Your task to perform on an android device: turn on the 12-hour format for clock Image 0: 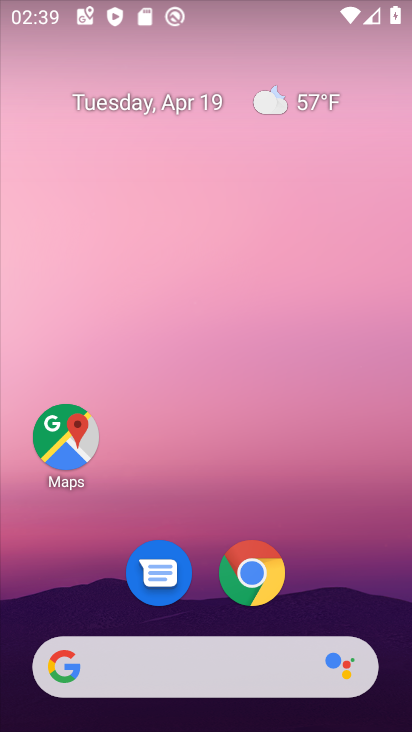
Step 0: drag from (376, 627) to (392, 34)
Your task to perform on an android device: turn on the 12-hour format for clock Image 1: 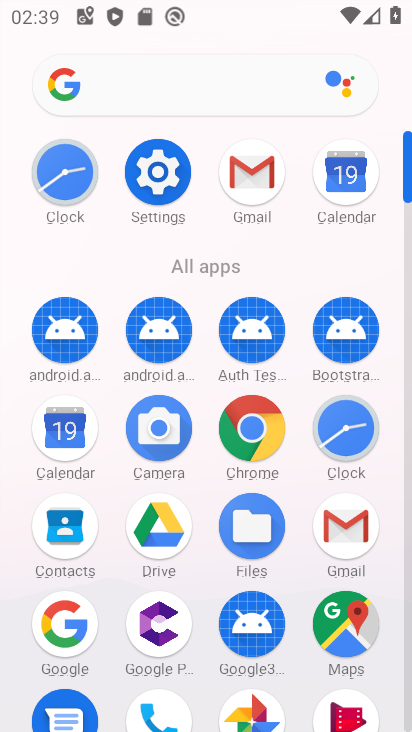
Step 1: click (331, 429)
Your task to perform on an android device: turn on the 12-hour format for clock Image 2: 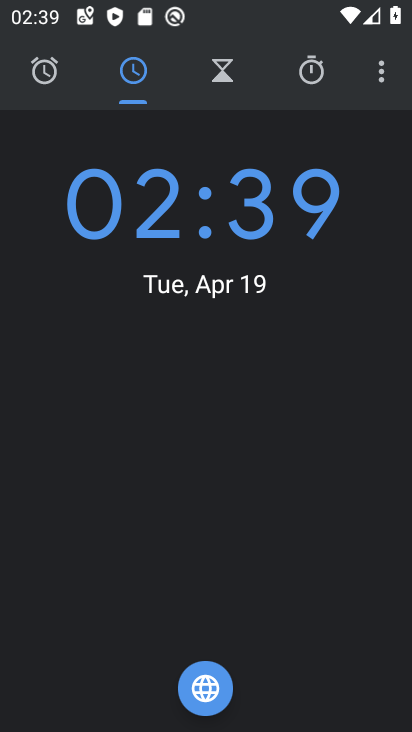
Step 2: click (382, 74)
Your task to perform on an android device: turn on the 12-hour format for clock Image 3: 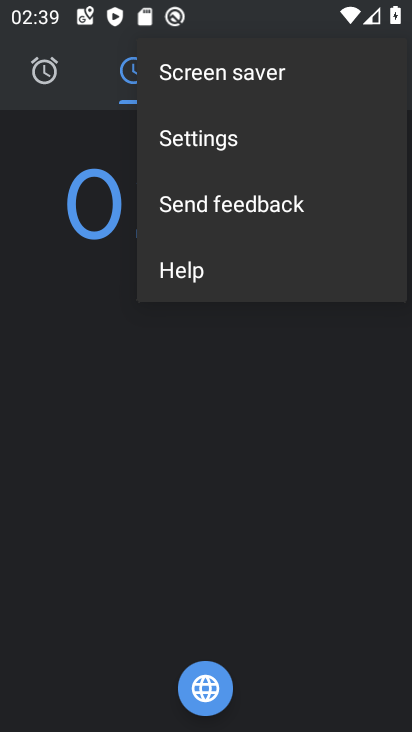
Step 3: click (212, 141)
Your task to perform on an android device: turn on the 12-hour format for clock Image 4: 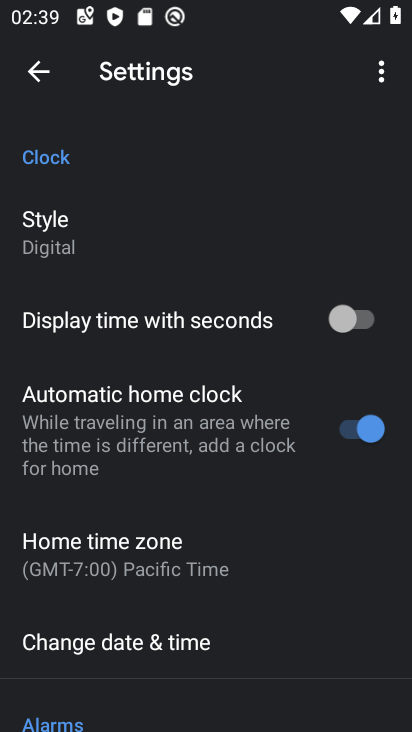
Step 4: click (110, 644)
Your task to perform on an android device: turn on the 12-hour format for clock Image 5: 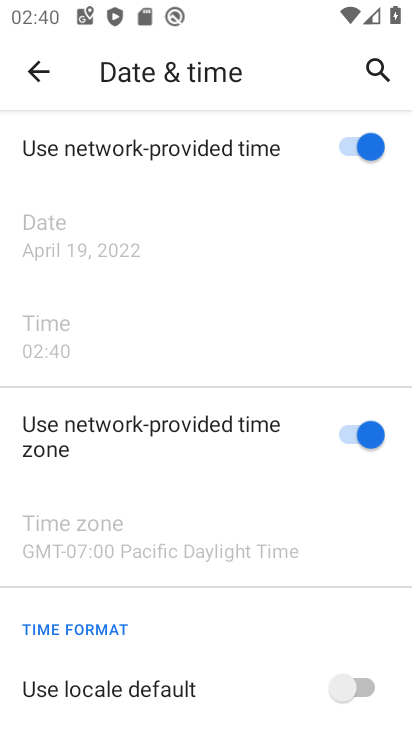
Step 5: drag from (154, 623) to (117, 289)
Your task to perform on an android device: turn on the 12-hour format for clock Image 6: 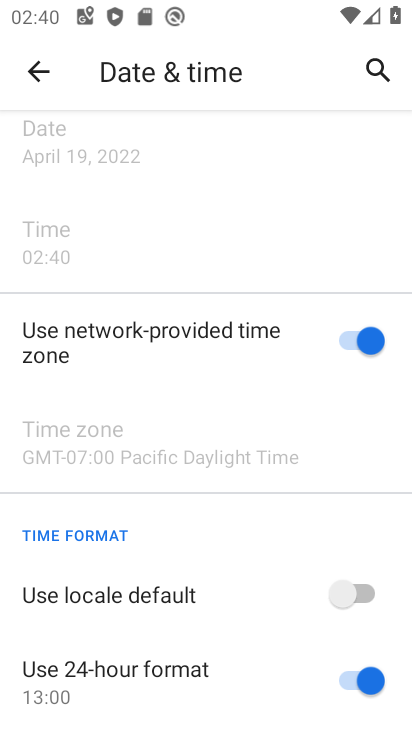
Step 6: click (370, 682)
Your task to perform on an android device: turn on the 12-hour format for clock Image 7: 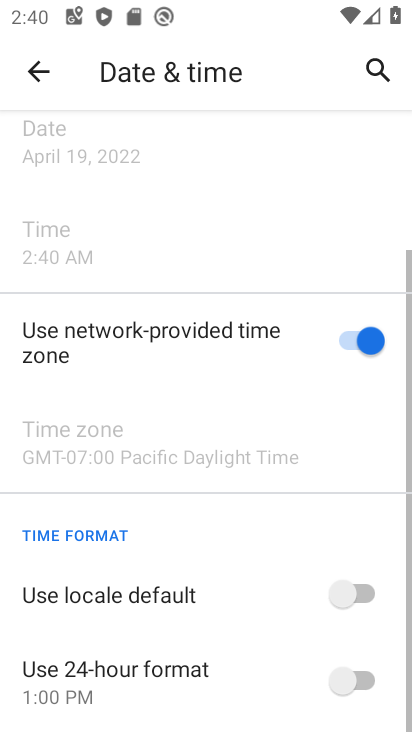
Step 7: click (343, 593)
Your task to perform on an android device: turn on the 12-hour format for clock Image 8: 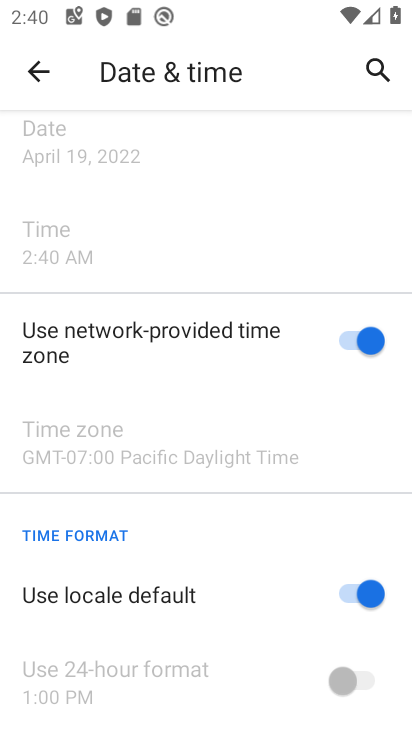
Step 8: task complete